Your task to perform on an android device: open a bookmark in the chrome app Image 0: 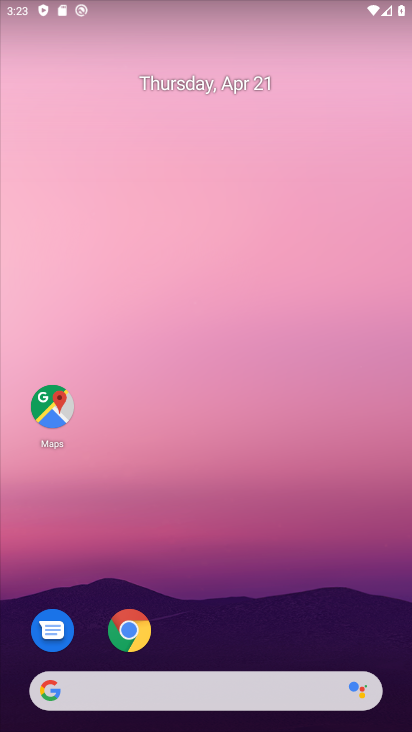
Step 0: click (136, 629)
Your task to perform on an android device: open a bookmark in the chrome app Image 1: 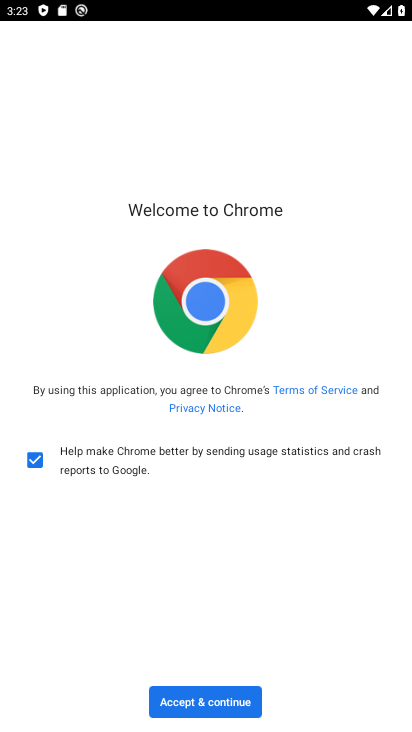
Step 1: click (200, 711)
Your task to perform on an android device: open a bookmark in the chrome app Image 2: 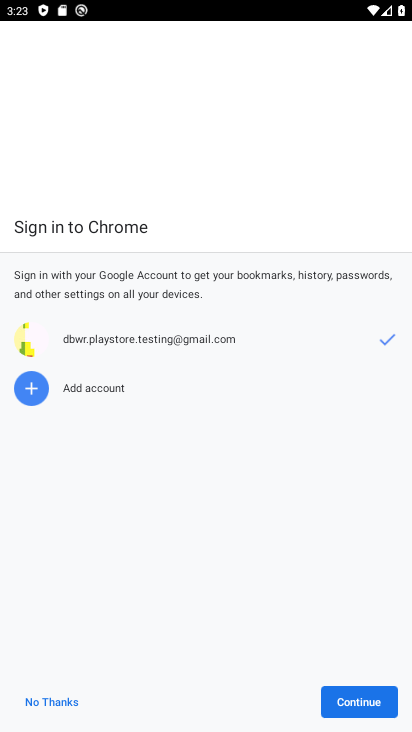
Step 2: click (378, 701)
Your task to perform on an android device: open a bookmark in the chrome app Image 3: 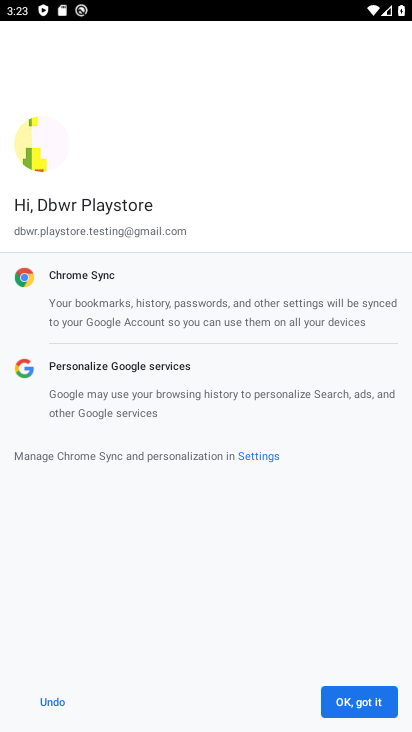
Step 3: click (363, 707)
Your task to perform on an android device: open a bookmark in the chrome app Image 4: 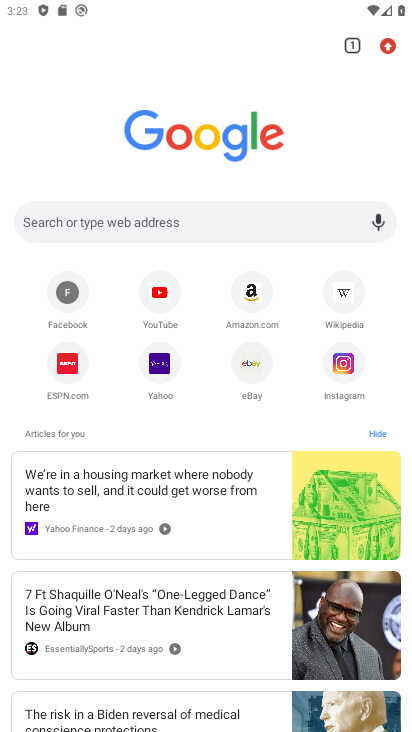
Step 4: click (388, 48)
Your task to perform on an android device: open a bookmark in the chrome app Image 5: 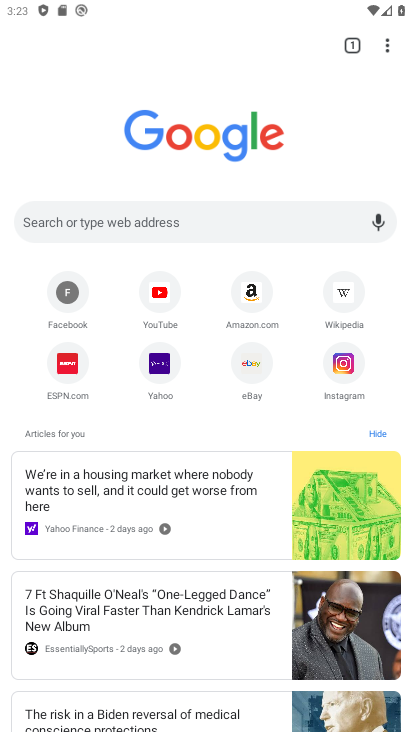
Step 5: click (388, 48)
Your task to perform on an android device: open a bookmark in the chrome app Image 6: 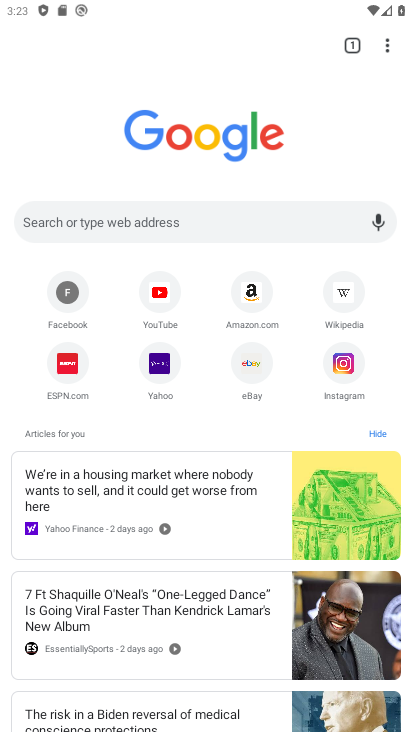
Step 6: click (388, 48)
Your task to perform on an android device: open a bookmark in the chrome app Image 7: 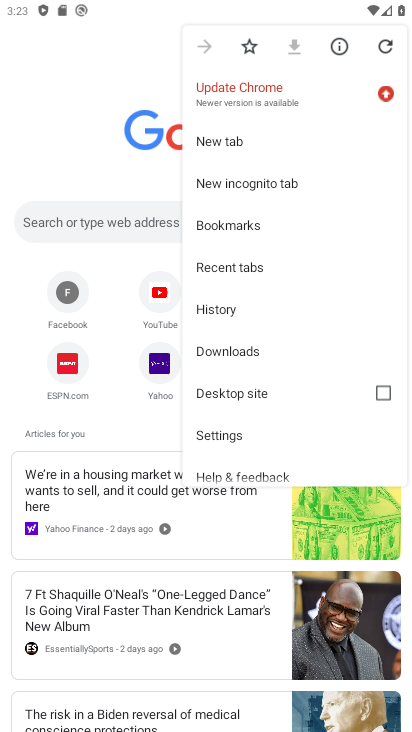
Step 7: click (246, 233)
Your task to perform on an android device: open a bookmark in the chrome app Image 8: 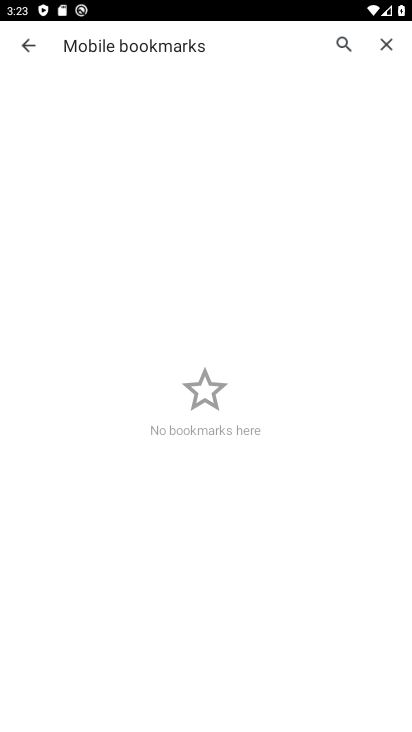
Step 8: task complete